Your task to perform on an android device: Turn on the flashlight Image 0: 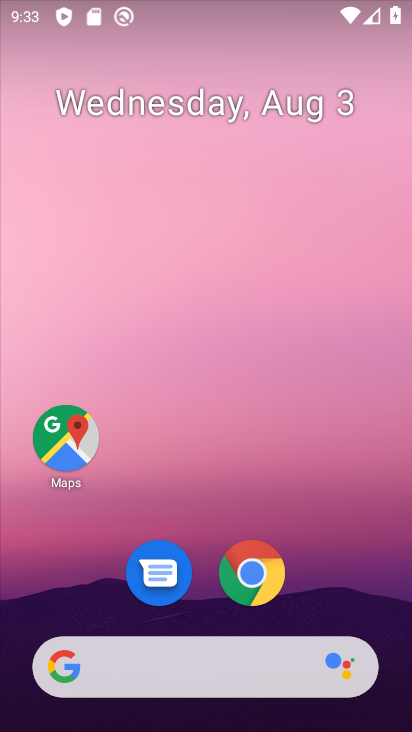
Step 0: drag from (182, 5) to (213, 575)
Your task to perform on an android device: Turn on the flashlight Image 1: 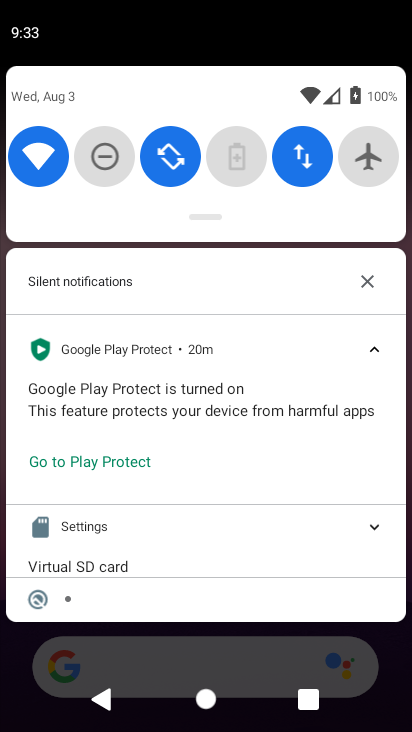
Step 1: task complete